Your task to perform on an android device: Go to battery settings Image 0: 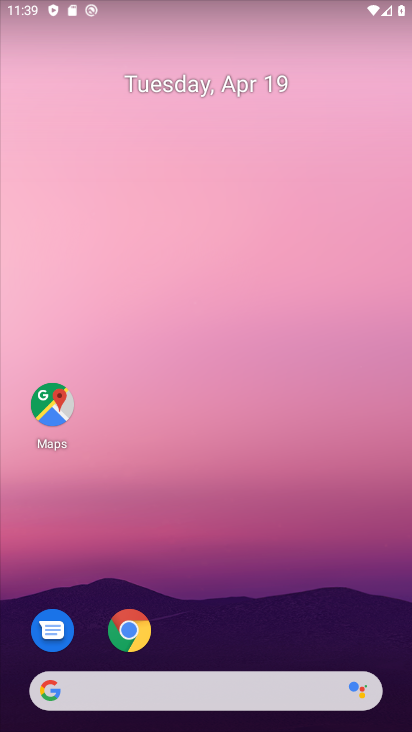
Step 0: drag from (341, 605) to (314, 177)
Your task to perform on an android device: Go to battery settings Image 1: 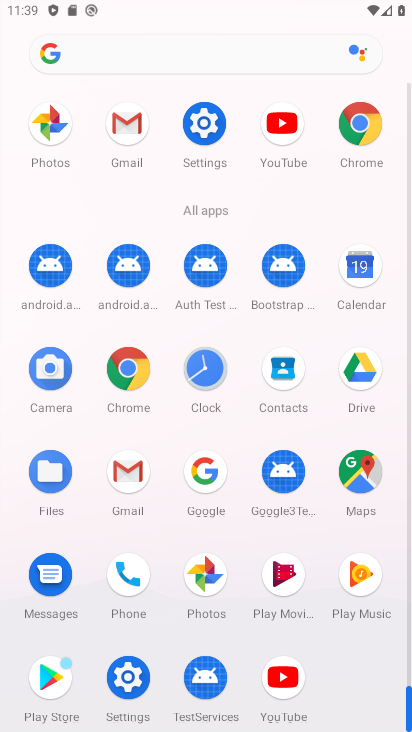
Step 1: click (124, 665)
Your task to perform on an android device: Go to battery settings Image 2: 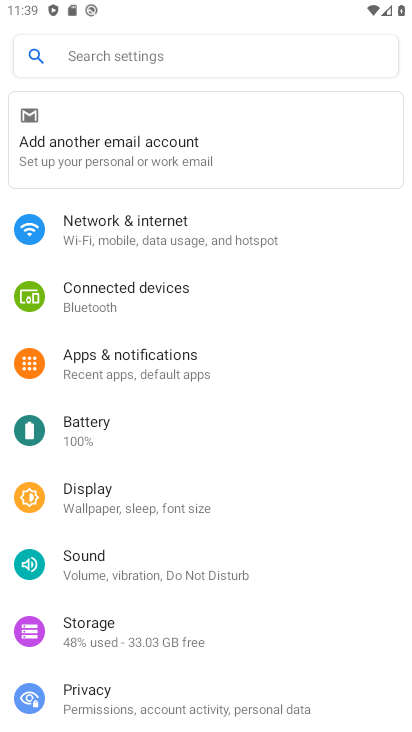
Step 2: click (63, 420)
Your task to perform on an android device: Go to battery settings Image 3: 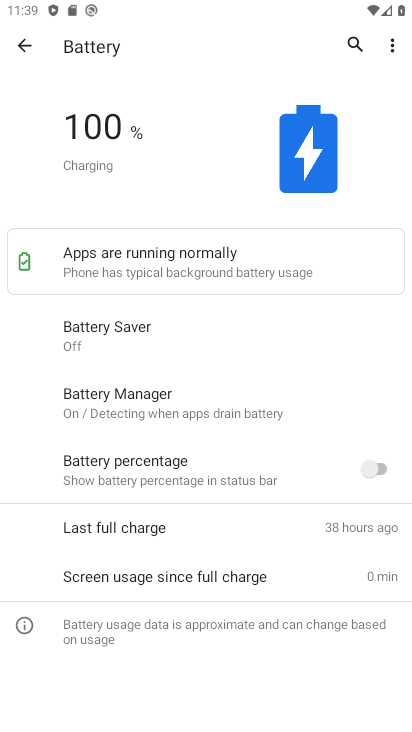
Step 3: task complete